Your task to perform on an android device: refresh tabs in the chrome app Image 0: 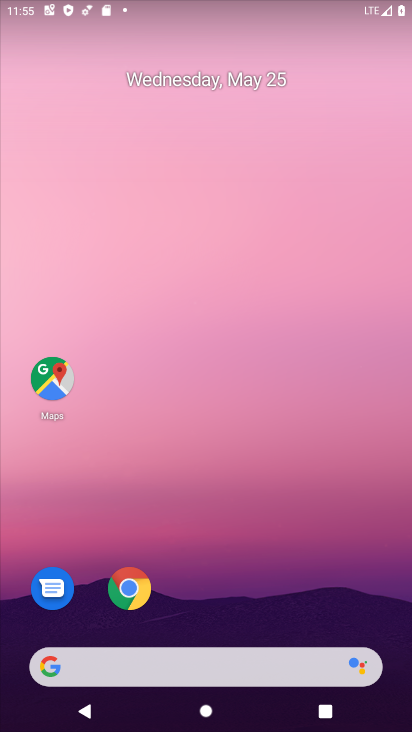
Step 0: drag from (256, 550) to (228, 15)
Your task to perform on an android device: refresh tabs in the chrome app Image 1: 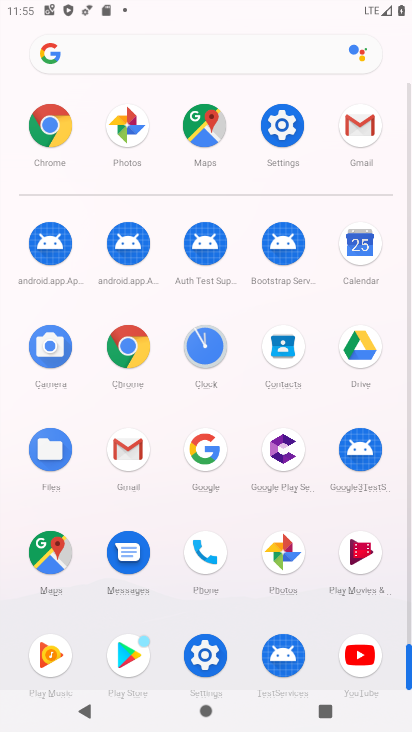
Step 1: drag from (15, 583) to (4, 221)
Your task to perform on an android device: refresh tabs in the chrome app Image 2: 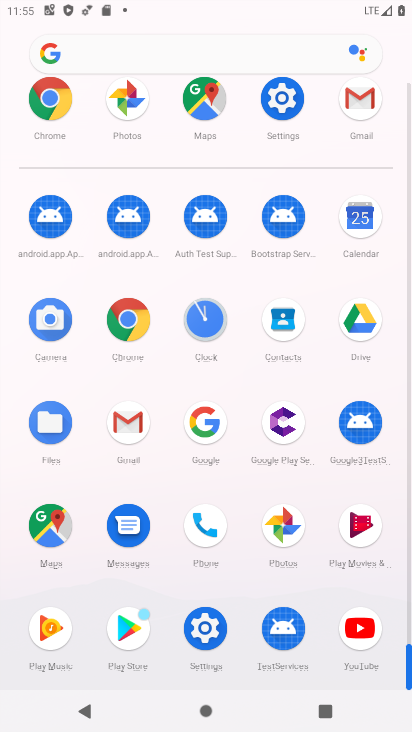
Step 2: click (126, 315)
Your task to perform on an android device: refresh tabs in the chrome app Image 3: 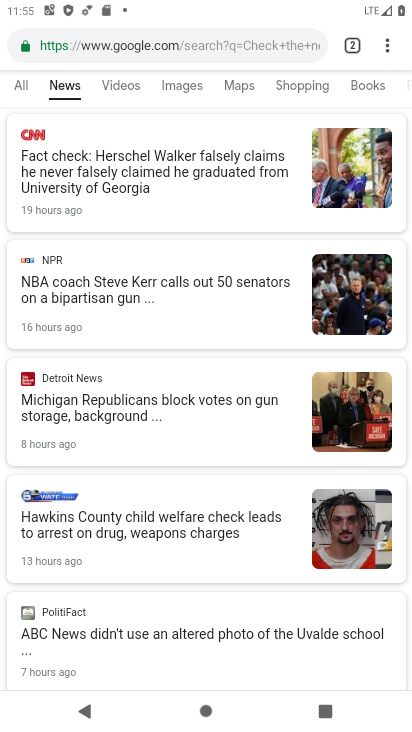
Step 3: click (386, 48)
Your task to perform on an android device: refresh tabs in the chrome app Image 4: 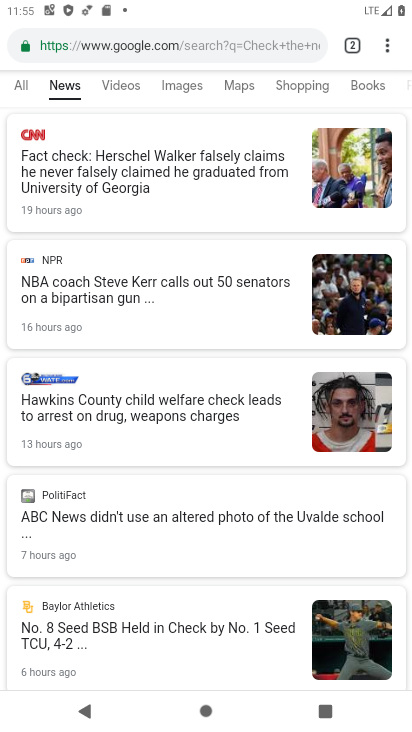
Step 4: task complete